Your task to perform on an android device: Go to Maps Image 0: 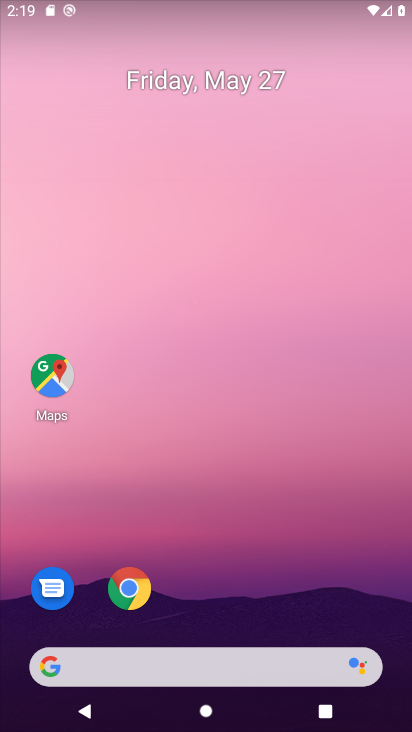
Step 0: click (51, 379)
Your task to perform on an android device: Go to Maps Image 1: 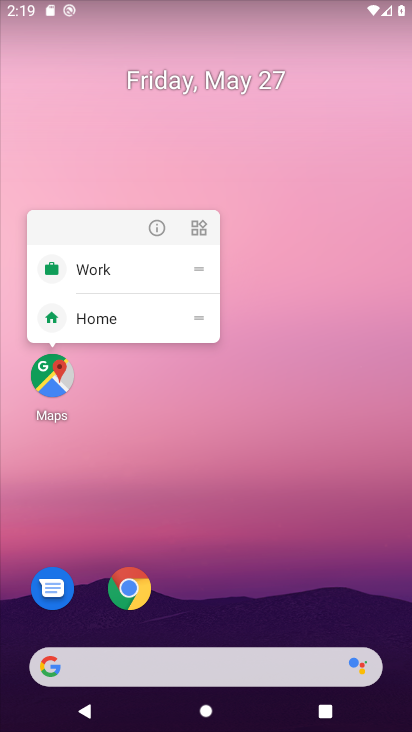
Step 1: click (54, 396)
Your task to perform on an android device: Go to Maps Image 2: 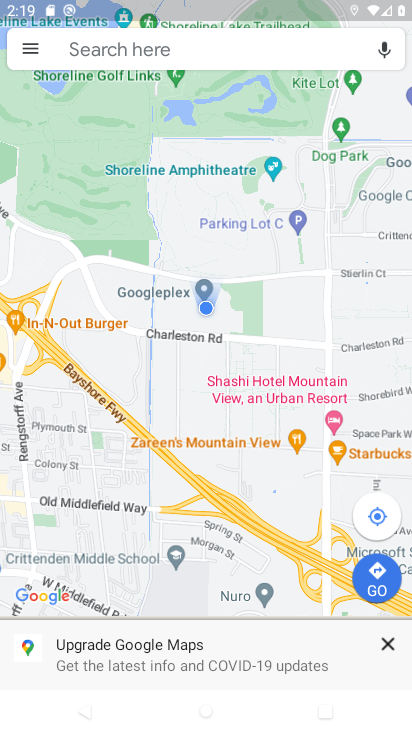
Step 2: task complete